Your task to perform on an android device: check data usage Image 0: 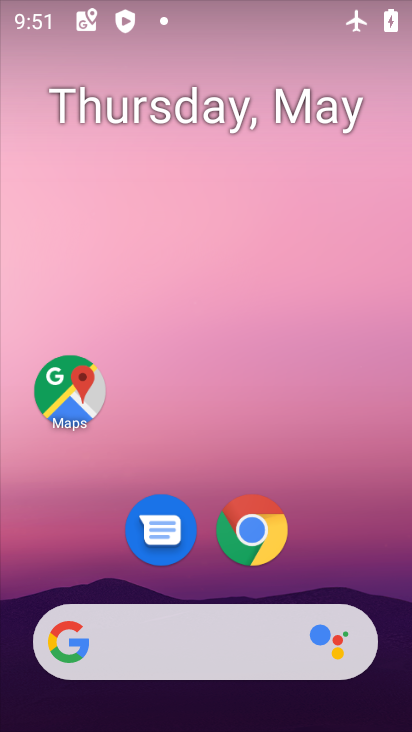
Step 0: drag from (217, 640) to (0, 222)
Your task to perform on an android device: check data usage Image 1: 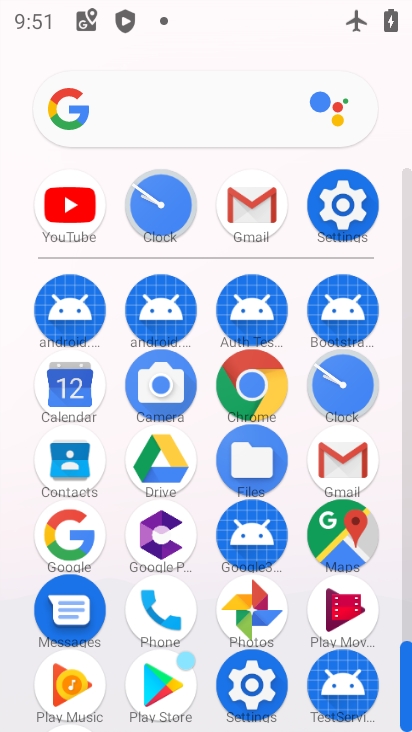
Step 1: click (323, 195)
Your task to perform on an android device: check data usage Image 2: 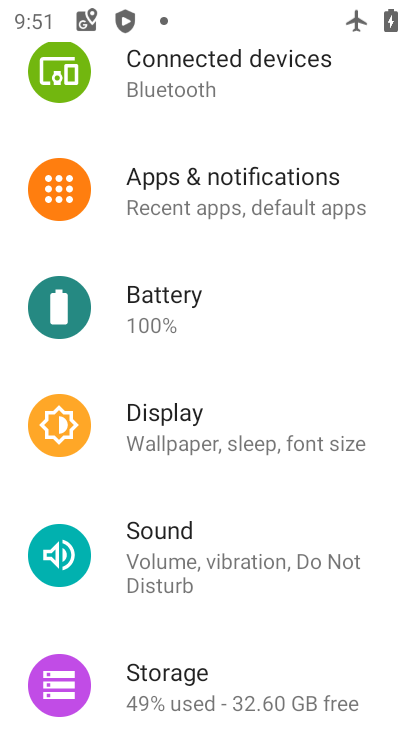
Step 2: drag from (283, 155) to (292, 537)
Your task to perform on an android device: check data usage Image 3: 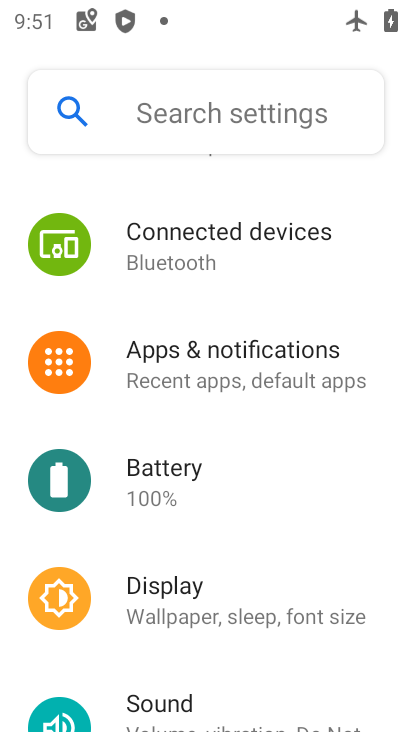
Step 3: drag from (292, 207) to (287, 628)
Your task to perform on an android device: check data usage Image 4: 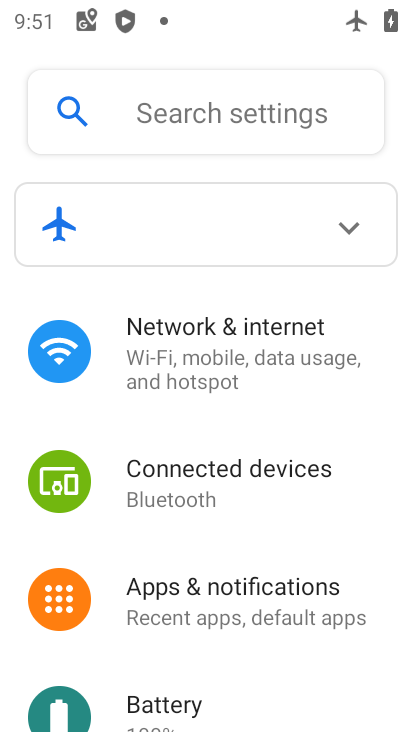
Step 4: click (259, 342)
Your task to perform on an android device: check data usage Image 5: 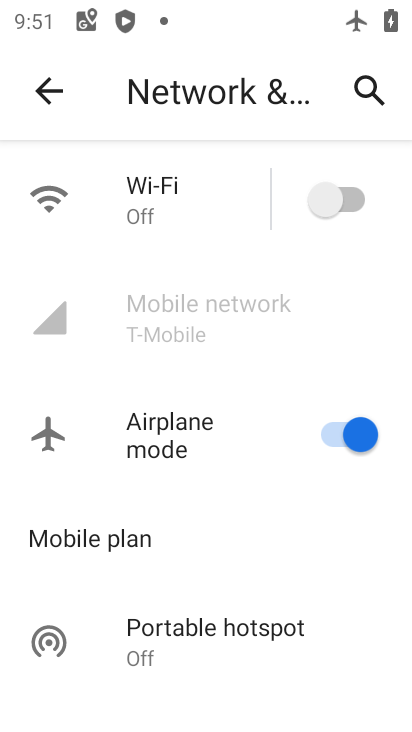
Step 5: click (223, 324)
Your task to perform on an android device: check data usage Image 6: 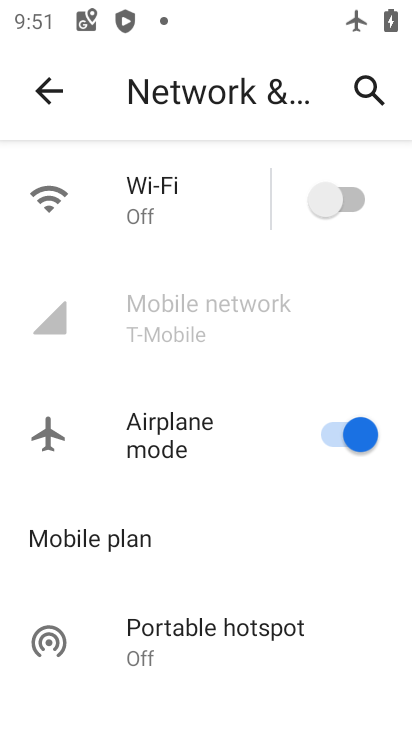
Step 6: task complete